Your task to perform on an android device: turn on sleep mode Image 0: 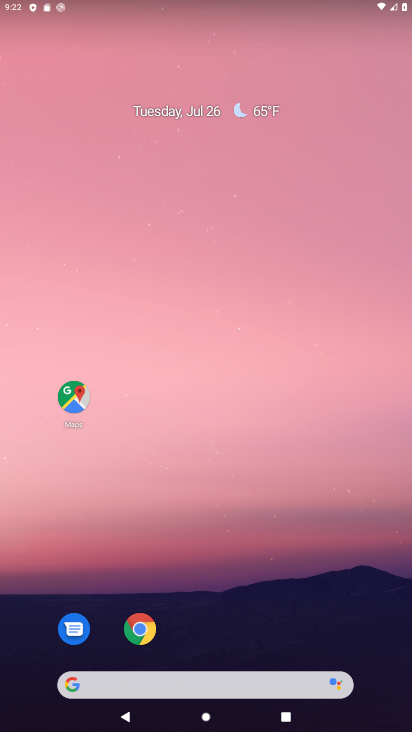
Step 0: drag from (251, 640) to (132, 69)
Your task to perform on an android device: turn on sleep mode Image 1: 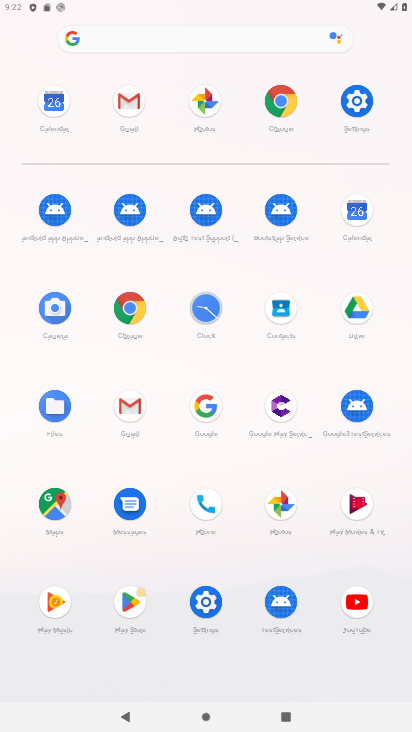
Step 1: click (357, 102)
Your task to perform on an android device: turn on sleep mode Image 2: 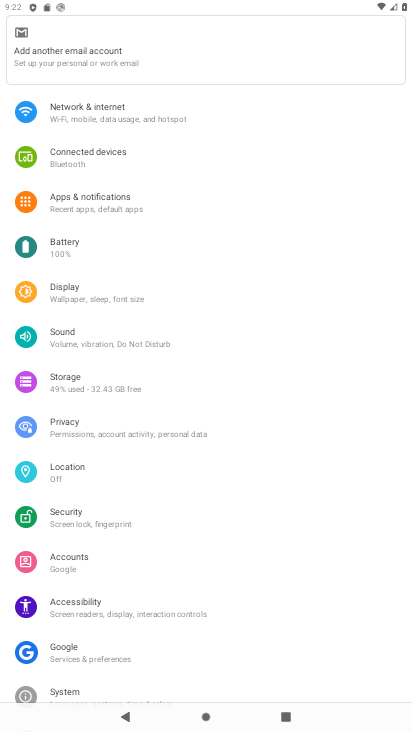
Step 2: click (114, 299)
Your task to perform on an android device: turn on sleep mode Image 3: 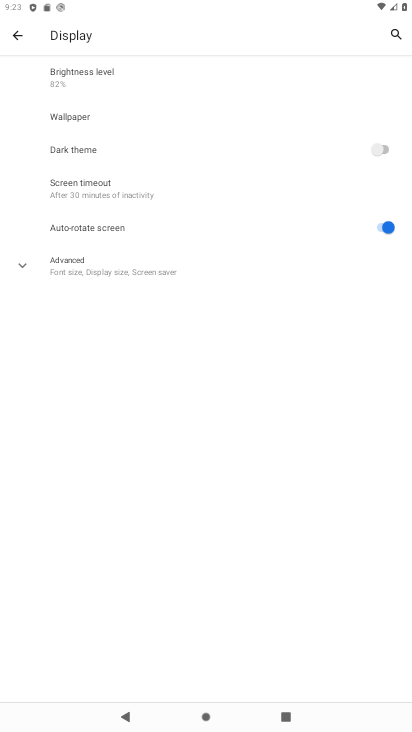
Step 3: click (96, 192)
Your task to perform on an android device: turn on sleep mode Image 4: 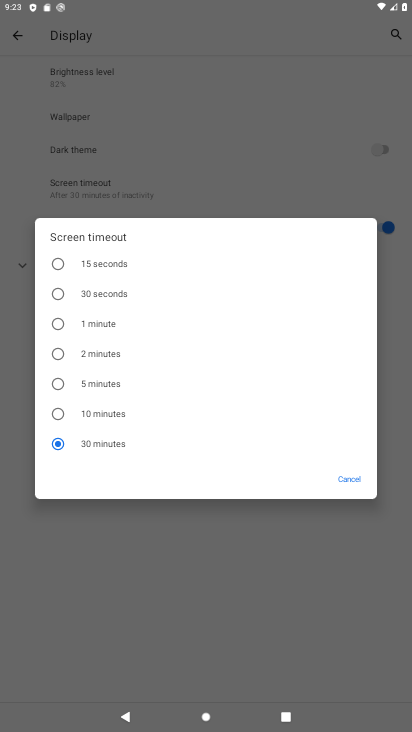
Step 4: task complete